Your task to perform on an android device: clear all cookies in the chrome app Image 0: 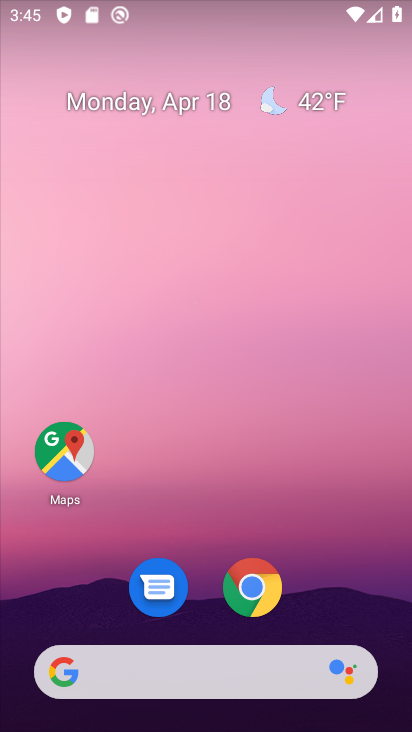
Step 0: click (265, 582)
Your task to perform on an android device: clear all cookies in the chrome app Image 1: 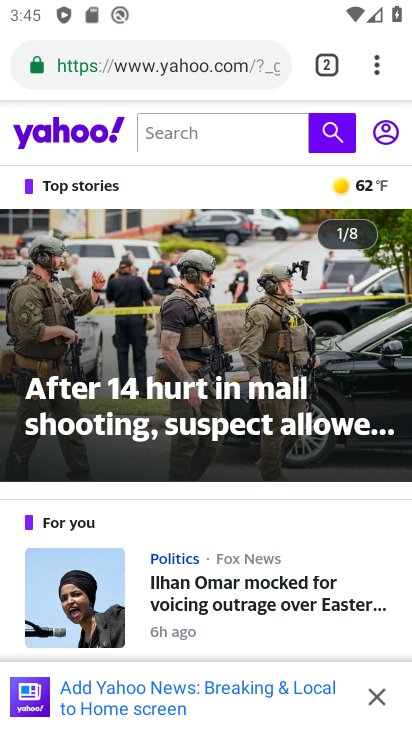
Step 1: click (375, 60)
Your task to perform on an android device: clear all cookies in the chrome app Image 2: 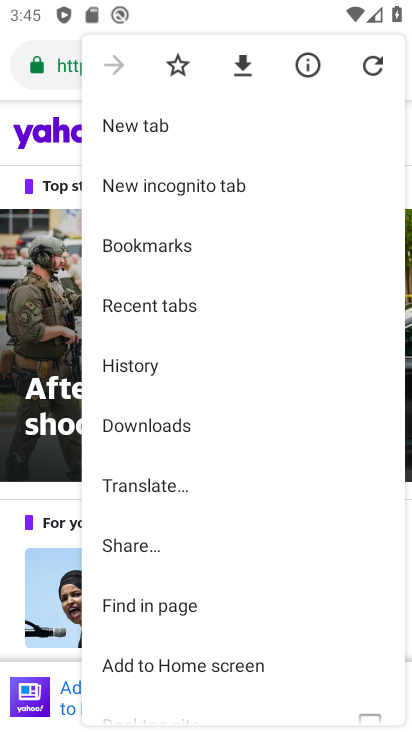
Step 2: click (163, 351)
Your task to perform on an android device: clear all cookies in the chrome app Image 3: 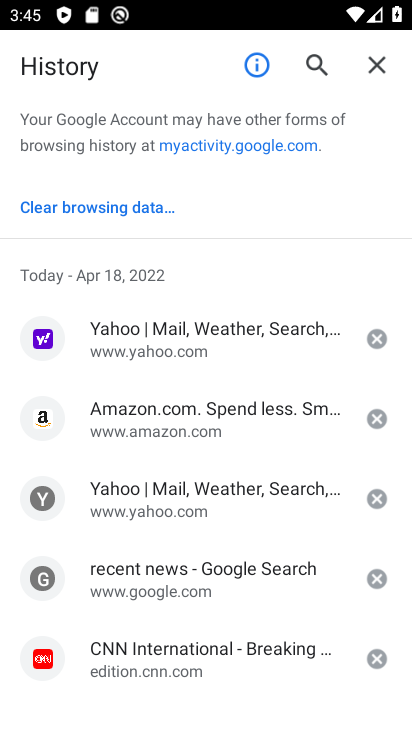
Step 3: click (142, 207)
Your task to perform on an android device: clear all cookies in the chrome app Image 4: 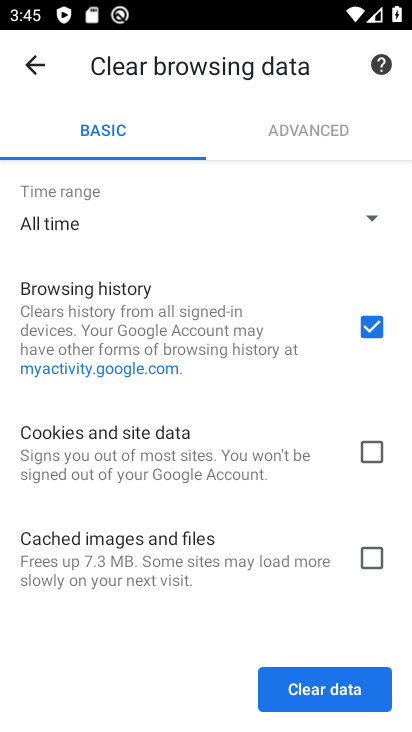
Step 4: click (370, 446)
Your task to perform on an android device: clear all cookies in the chrome app Image 5: 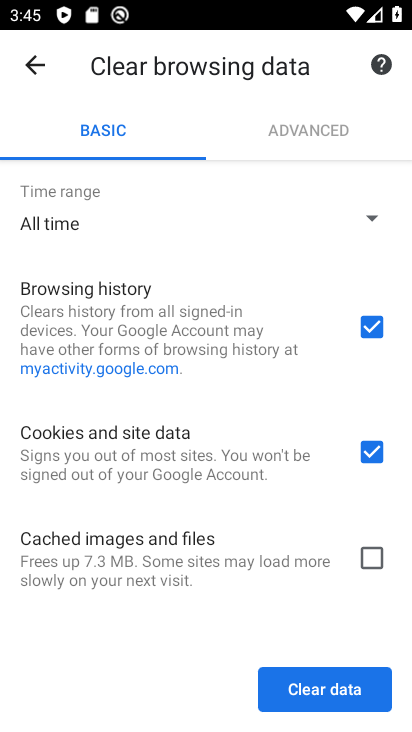
Step 5: click (371, 326)
Your task to perform on an android device: clear all cookies in the chrome app Image 6: 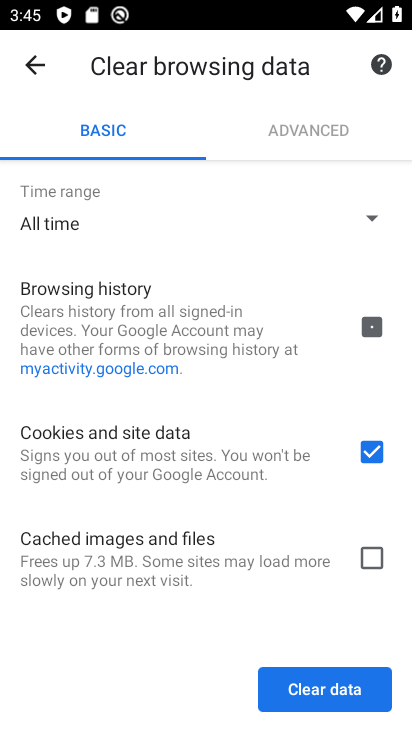
Step 6: click (338, 681)
Your task to perform on an android device: clear all cookies in the chrome app Image 7: 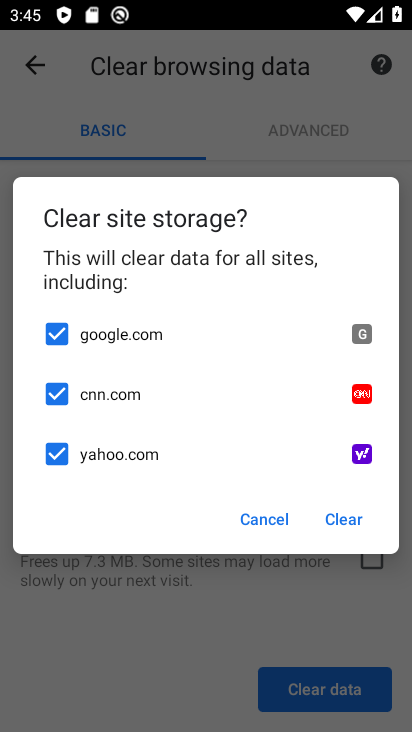
Step 7: click (350, 506)
Your task to perform on an android device: clear all cookies in the chrome app Image 8: 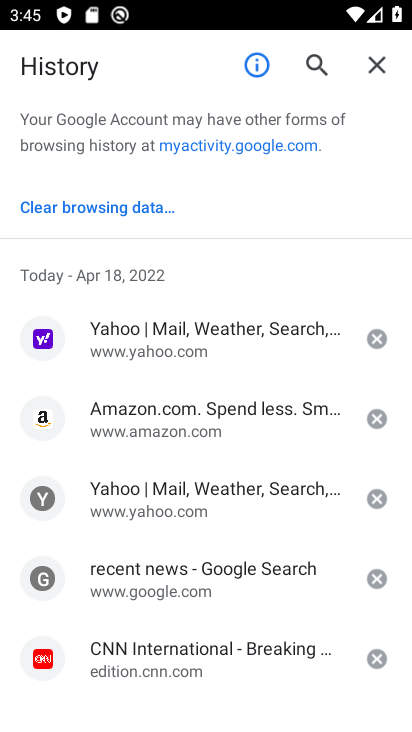
Step 8: task complete